Your task to perform on an android device: turn on the 24-hour format for clock Image 0: 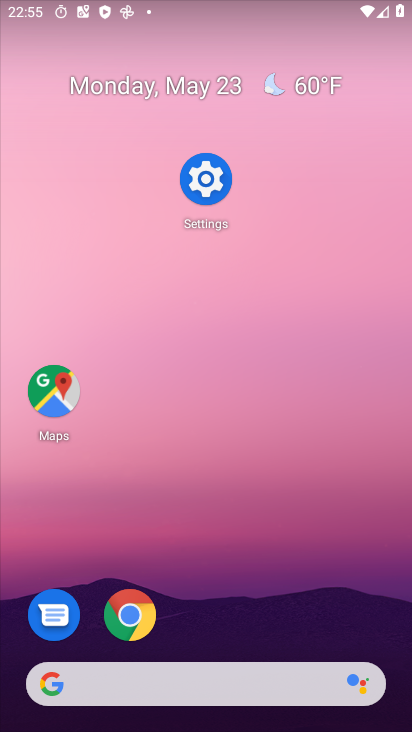
Step 0: drag from (260, 577) to (304, 103)
Your task to perform on an android device: turn on the 24-hour format for clock Image 1: 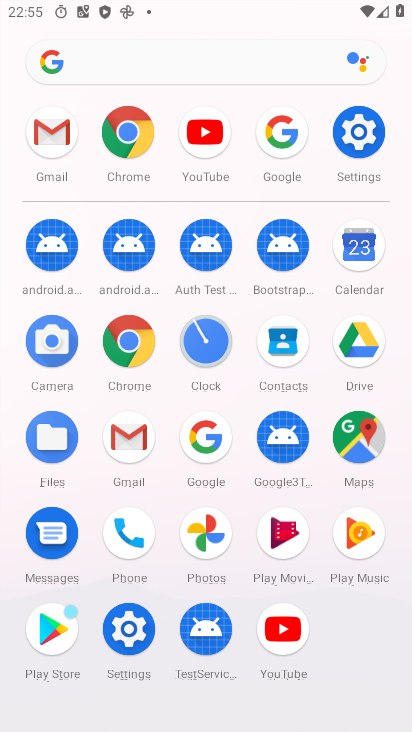
Step 1: click (211, 339)
Your task to perform on an android device: turn on the 24-hour format for clock Image 2: 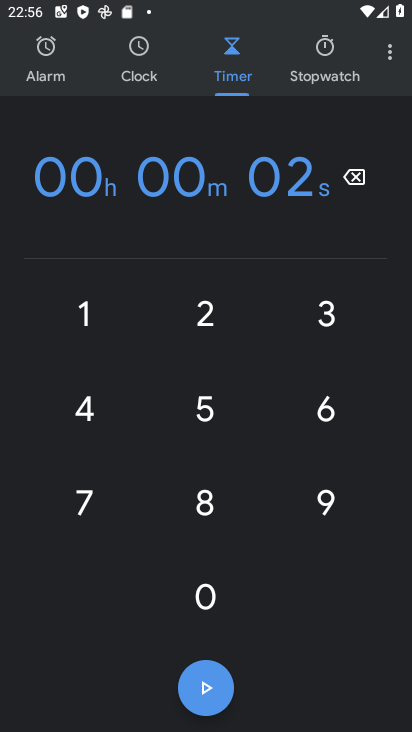
Step 2: click (386, 52)
Your task to perform on an android device: turn on the 24-hour format for clock Image 3: 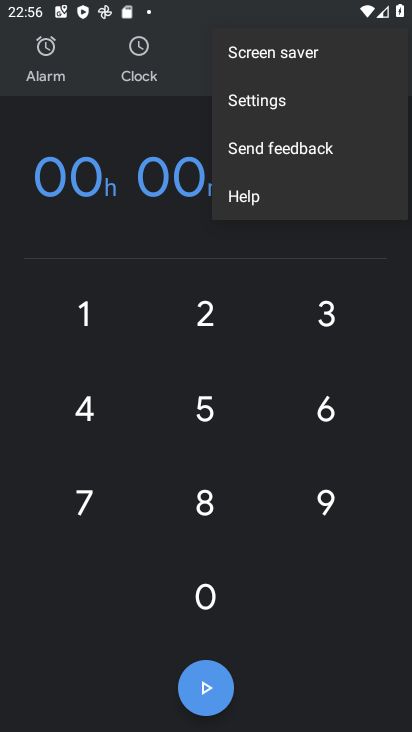
Step 3: click (269, 95)
Your task to perform on an android device: turn on the 24-hour format for clock Image 4: 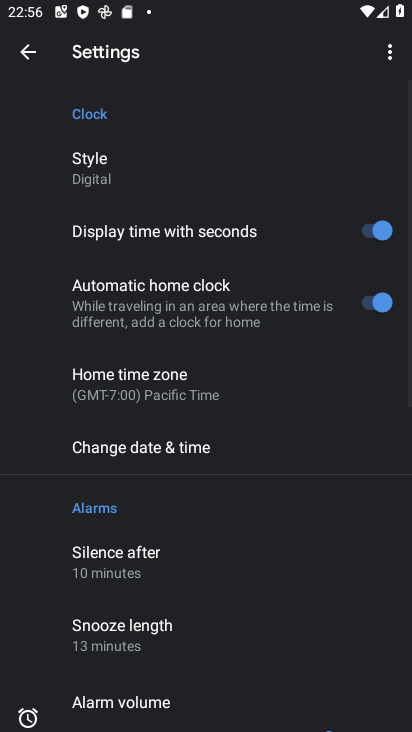
Step 4: click (143, 448)
Your task to perform on an android device: turn on the 24-hour format for clock Image 5: 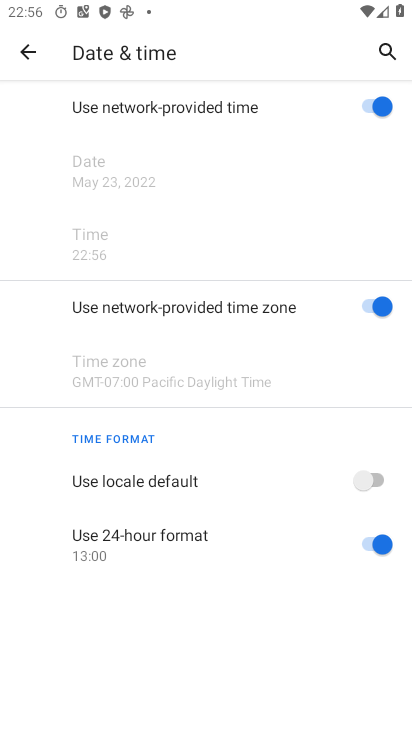
Step 5: task complete